Your task to perform on an android device: Open the stopwatch Image 0: 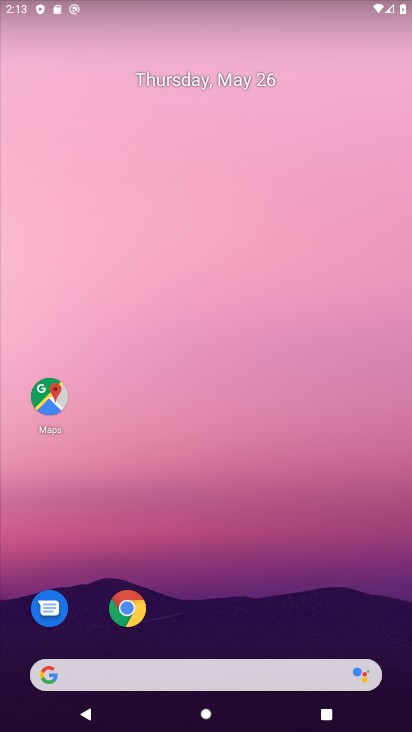
Step 0: drag from (258, 680) to (141, 71)
Your task to perform on an android device: Open the stopwatch Image 1: 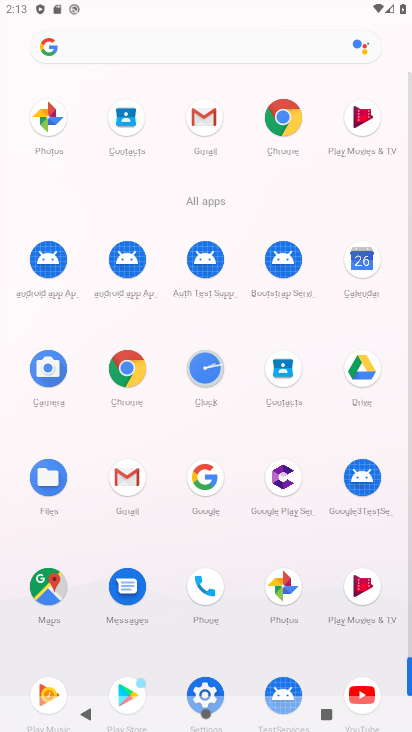
Step 1: click (196, 374)
Your task to perform on an android device: Open the stopwatch Image 2: 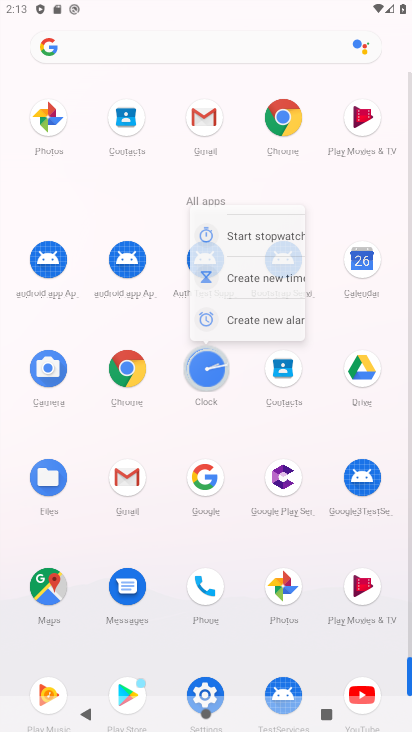
Step 2: click (198, 374)
Your task to perform on an android device: Open the stopwatch Image 3: 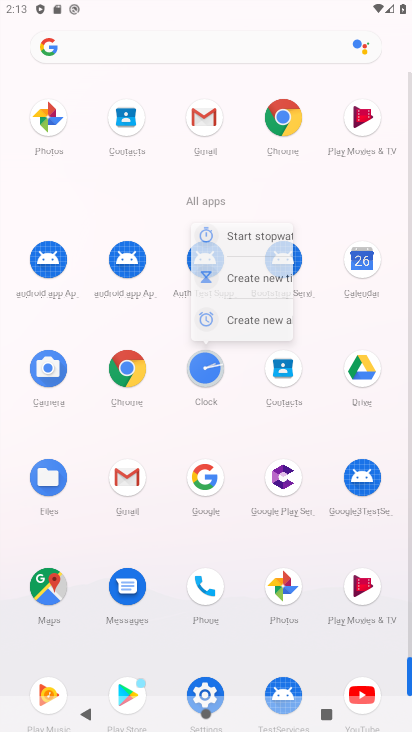
Step 3: click (198, 374)
Your task to perform on an android device: Open the stopwatch Image 4: 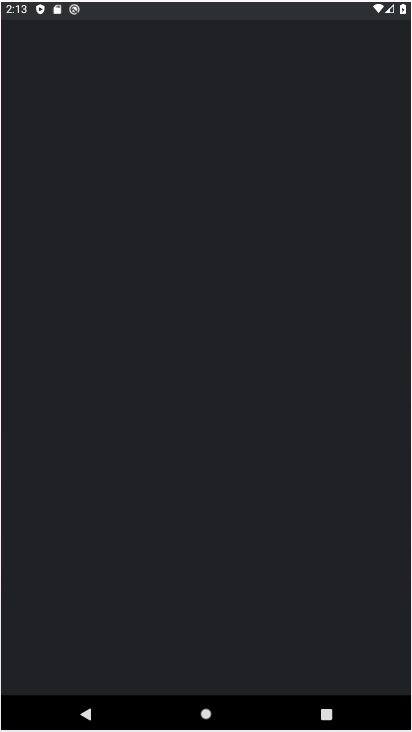
Step 4: click (198, 374)
Your task to perform on an android device: Open the stopwatch Image 5: 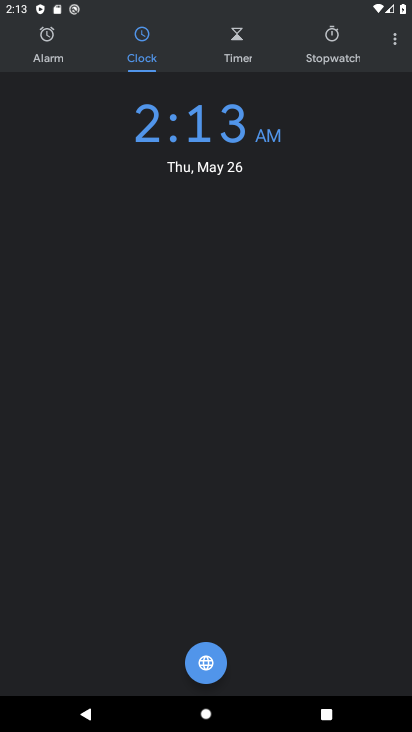
Step 5: click (198, 374)
Your task to perform on an android device: Open the stopwatch Image 6: 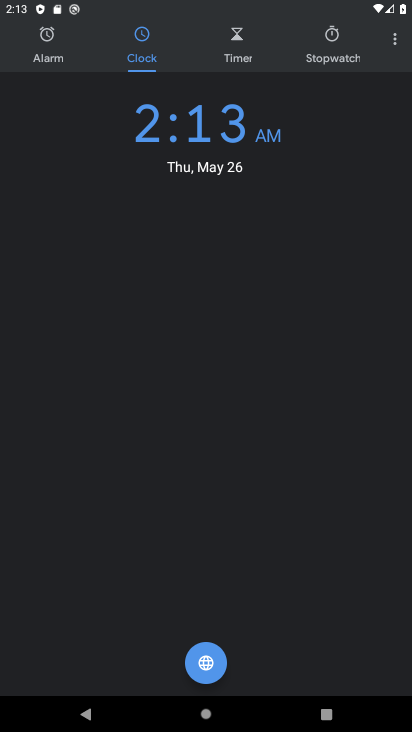
Step 6: click (338, 49)
Your task to perform on an android device: Open the stopwatch Image 7: 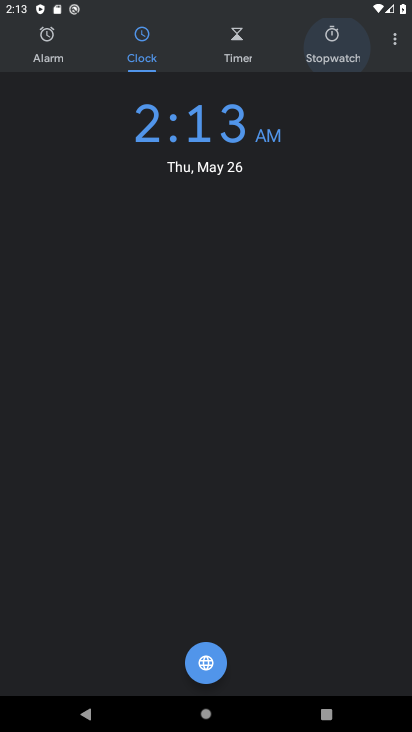
Step 7: click (338, 49)
Your task to perform on an android device: Open the stopwatch Image 8: 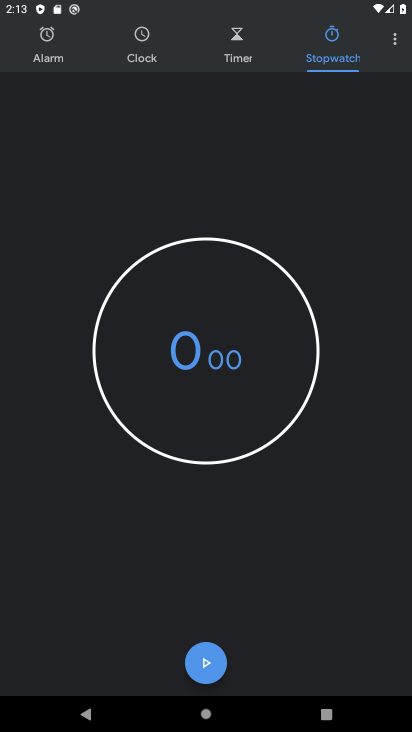
Step 8: click (209, 665)
Your task to perform on an android device: Open the stopwatch Image 9: 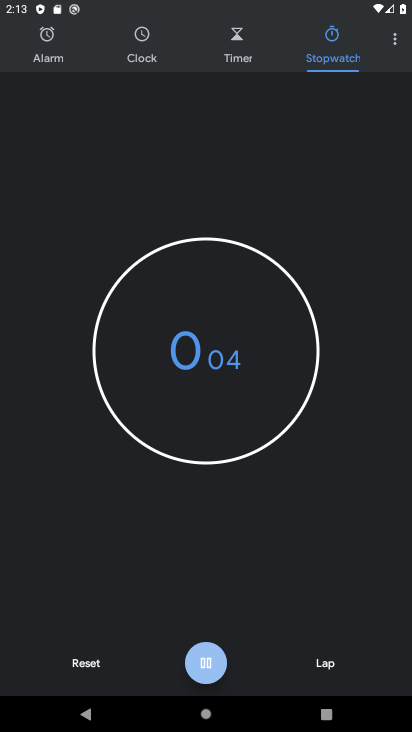
Step 9: click (210, 663)
Your task to perform on an android device: Open the stopwatch Image 10: 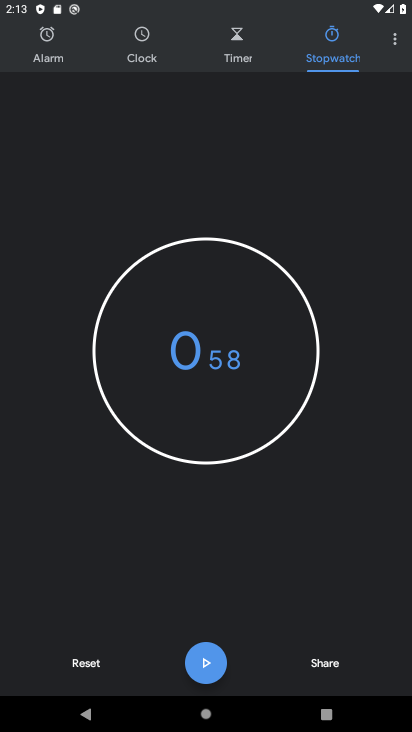
Step 10: click (196, 653)
Your task to perform on an android device: Open the stopwatch Image 11: 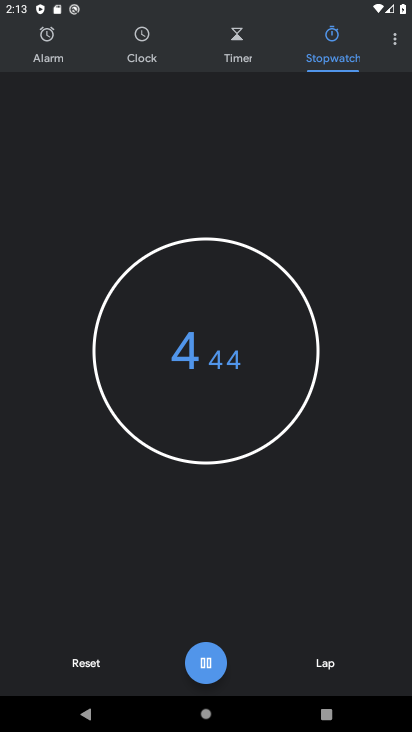
Step 11: click (208, 657)
Your task to perform on an android device: Open the stopwatch Image 12: 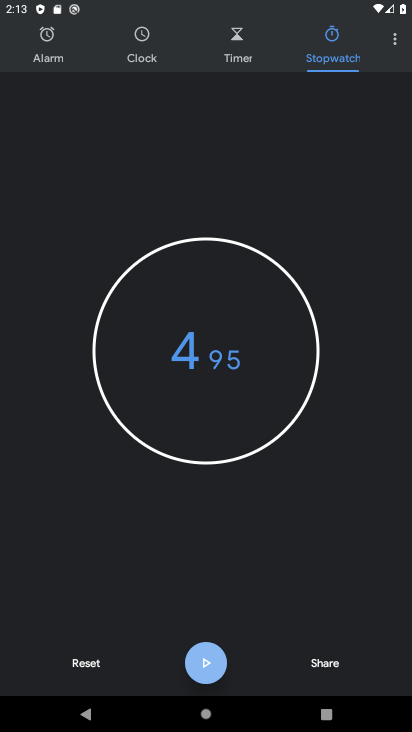
Step 12: click (208, 657)
Your task to perform on an android device: Open the stopwatch Image 13: 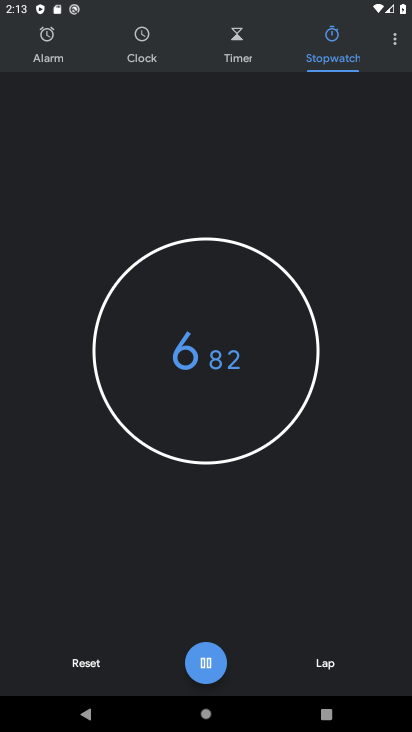
Step 13: click (201, 663)
Your task to perform on an android device: Open the stopwatch Image 14: 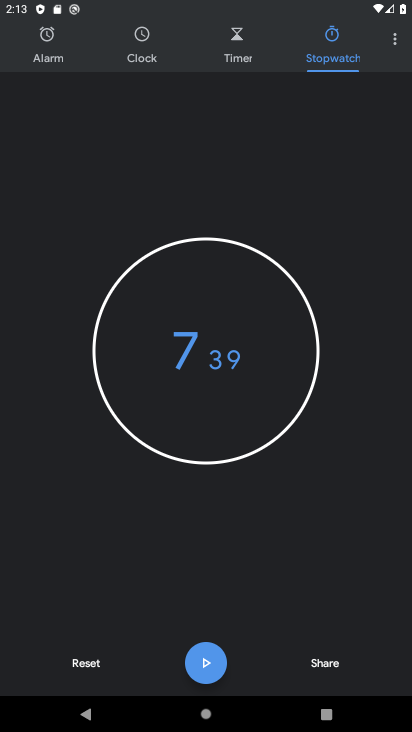
Step 14: task complete